Your task to perform on an android device: Open eBay Image 0: 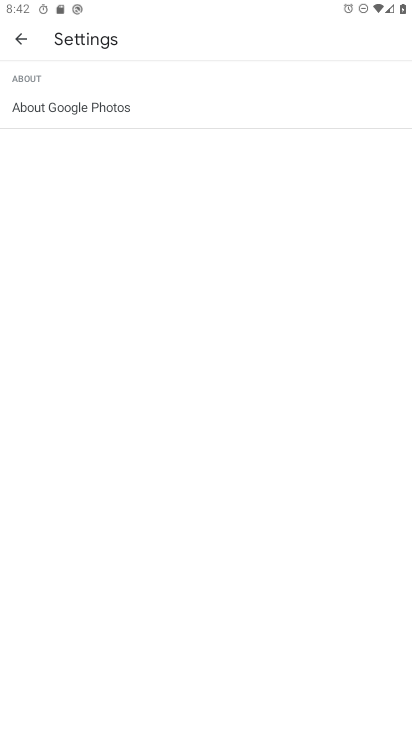
Step 0: drag from (205, 396) to (239, 190)
Your task to perform on an android device: Open eBay Image 1: 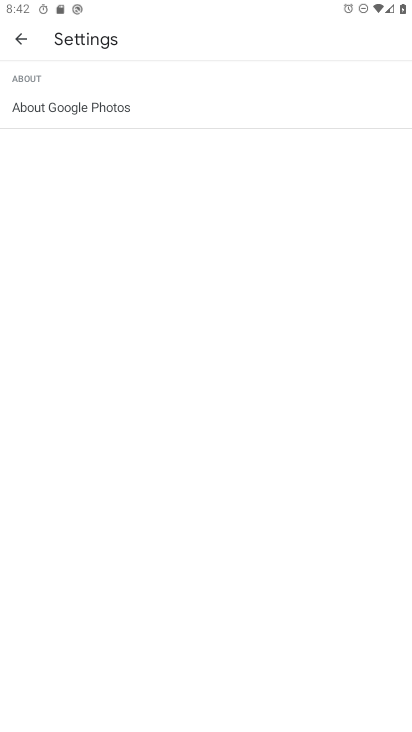
Step 1: press home button
Your task to perform on an android device: Open eBay Image 2: 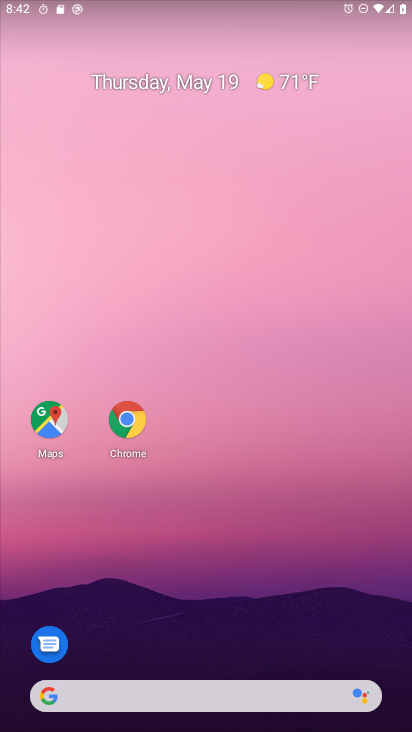
Step 2: drag from (167, 691) to (233, 297)
Your task to perform on an android device: Open eBay Image 3: 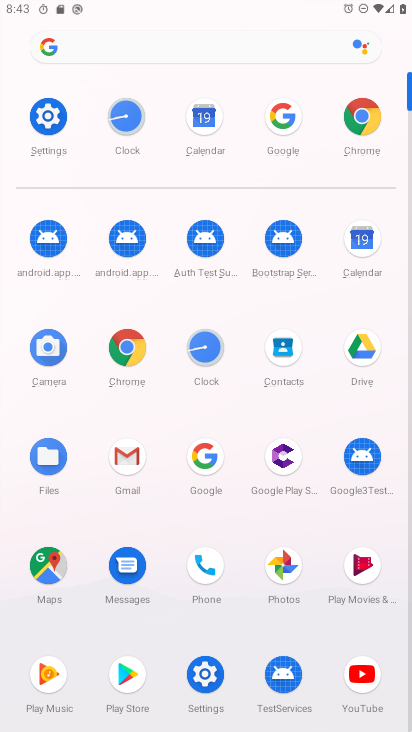
Step 3: click (135, 339)
Your task to perform on an android device: Open eBay Image 4: 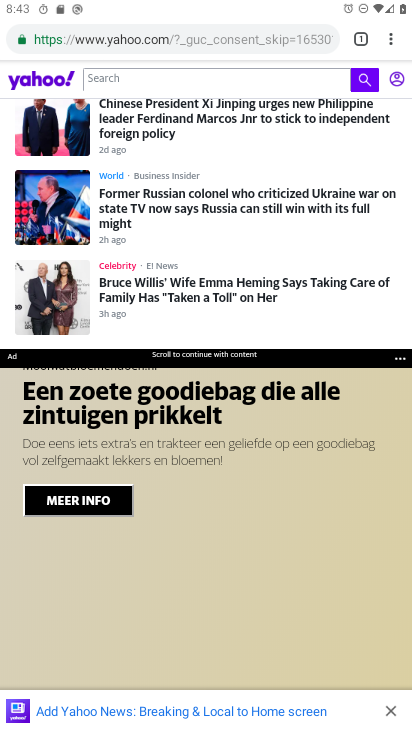
Step 4: click (220, 39)
Your task to perform on an android device: Open eBay Image 5: 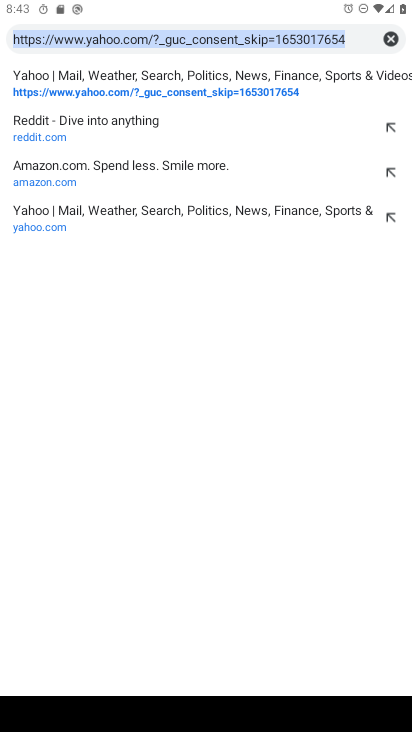
Step 5: click (391, 35)
Your task to perform on an android device: Open eBay Image 6: 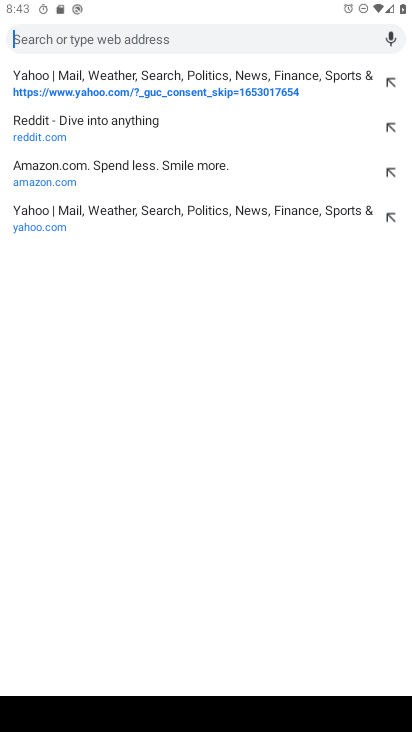
Step 6: click (147, 34)
Your task to perform on an android device: Open eBay Image 7: 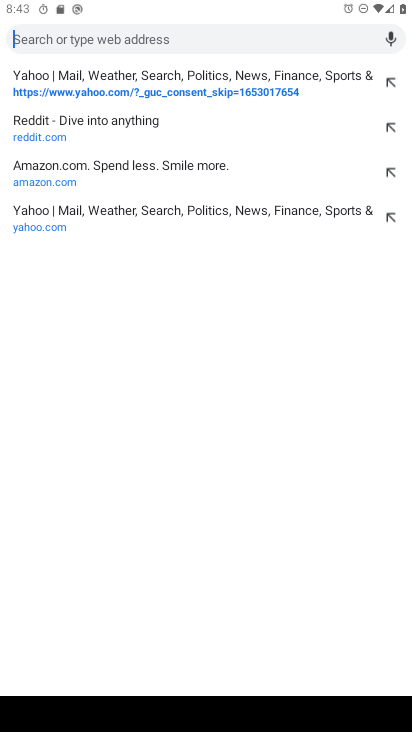
Step 7: type "ebay "
Your task to perform on an android device: Open eBay Image 8: 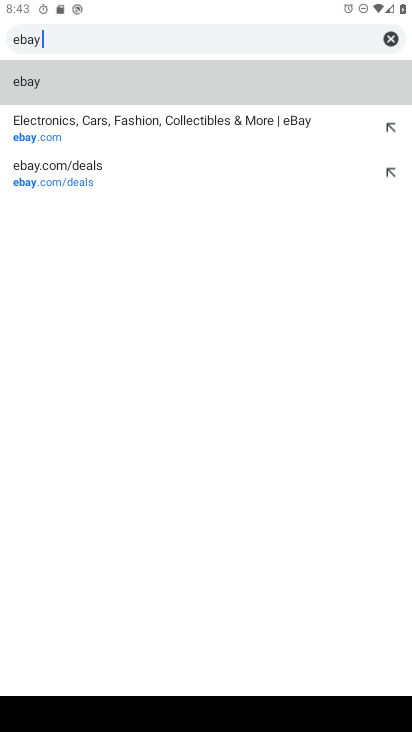
Step 8: click (77, 131)
Your task to perform on an android device: Open eBay Image 9: 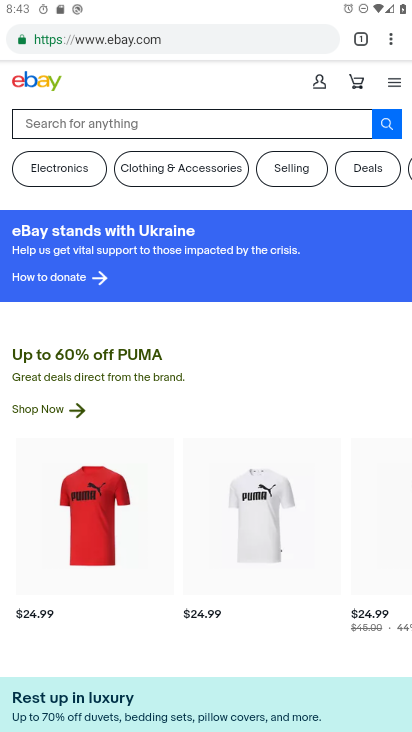
Step 9: task complete